Your task to perform on an android device: Go to network settings Image 0: 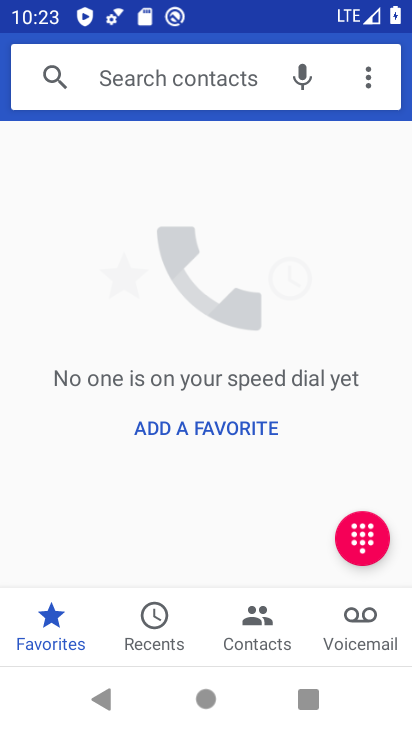
Step 0: press home button
Your task to perform on an android device: Go to network settings Image 1: 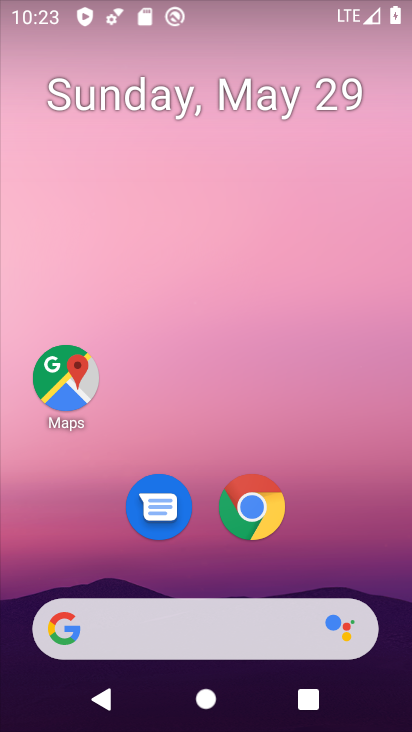
Step 1: drag from (66, 594) to (174, 214)
Your task to perform on an android device: Go to network settings Image 2: 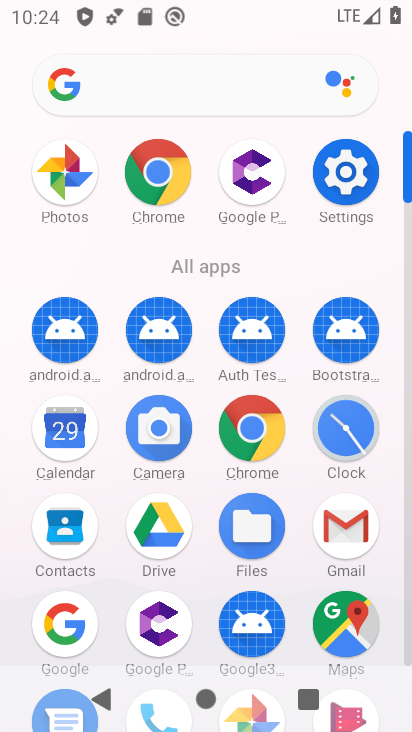
Step 2: click (353, 168)
Your task to perform on an android device: Go to network settings Image 3: 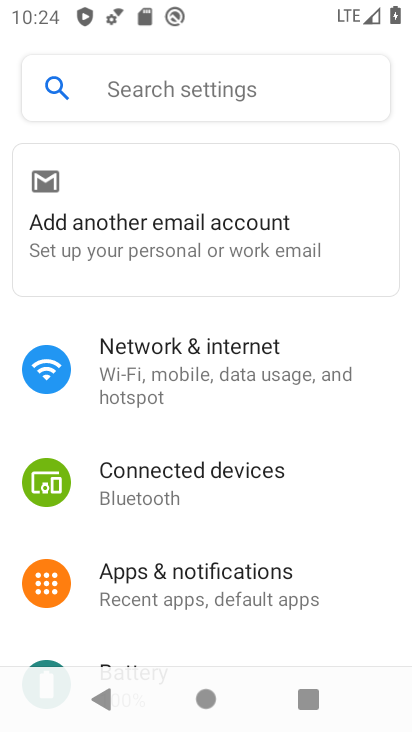
Step 3: click (273, 396)
Your task to perform on an android device: Go to network settings Image 4: 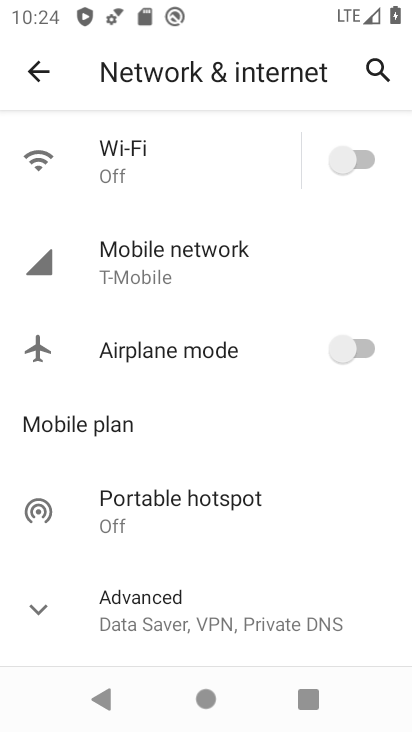
Step 4: click (197, 253)
Your task to perform on an android device: Go to network settings Image 5: 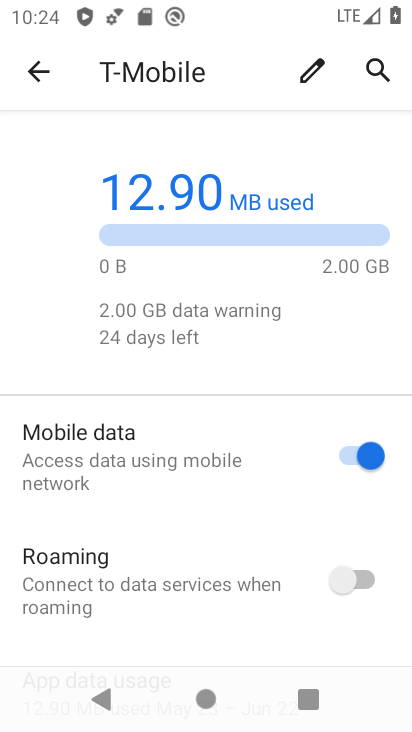
Step 5: task complete